Your task to perform on an android device: Open Chrome and go to the settings page Image 0: 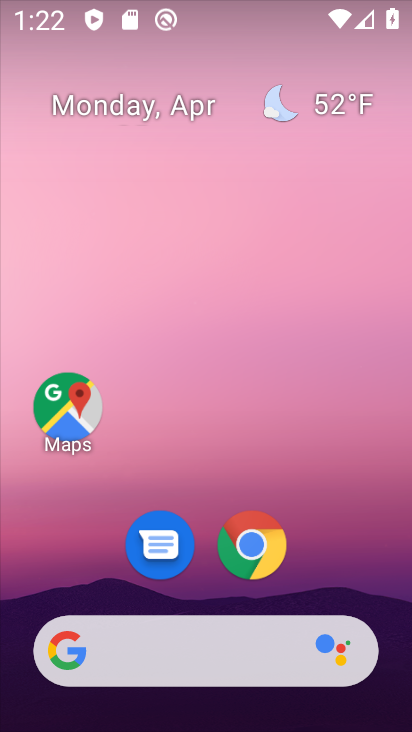
Step 0: click (259, 540)
Your task to perform on an android device: Open Chrome and go to the settings page Image 1: 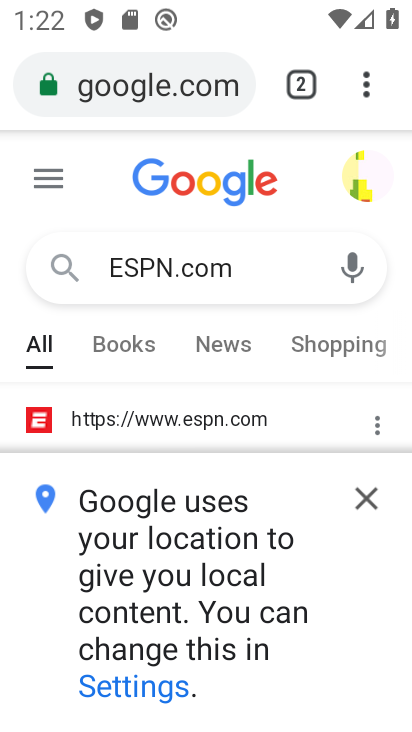
Step 1: task complete